Your task to perform on an android device: clear history in the chrome app Image 0: 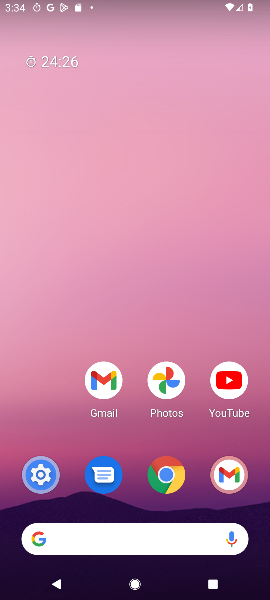
Step 0: press home button
Your task to perform on an android device: clear history in the chrome app Image 1: 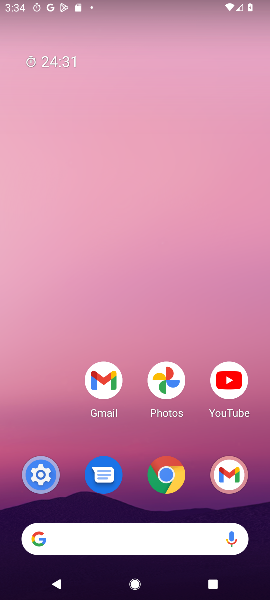
Step 1: drag from (55, 441) to (57, 242)
Your task to perform on an android device: clear history in the chrome app Image 2: 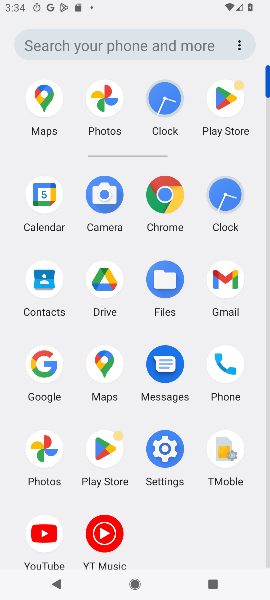
Step 2: click (170, 199)
Your task to perform on an android device: clear history in the chrome app Image 3: 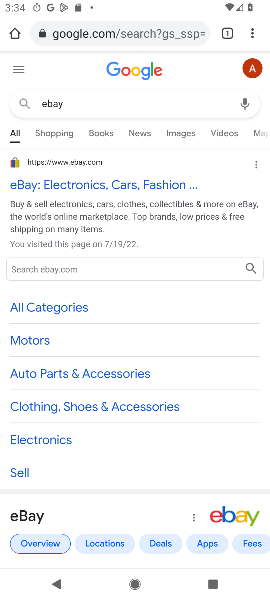
Step 3: click (252, 34)
Your task to perform on an android device: clear history in the chrome app Image 4: 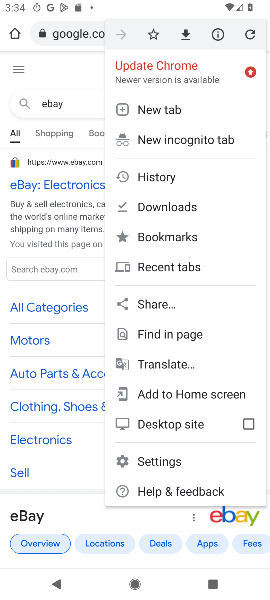
Step 4: click (182, 178)
Your task to perform on an android device: clear history in the chrome app Image 5: 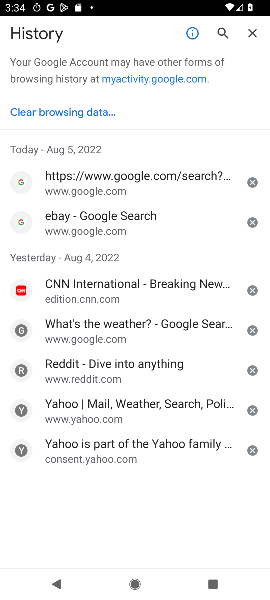
Step 5: click (112, 107)
Your task to perform on an android device: clear history in the chrome app Image 6: 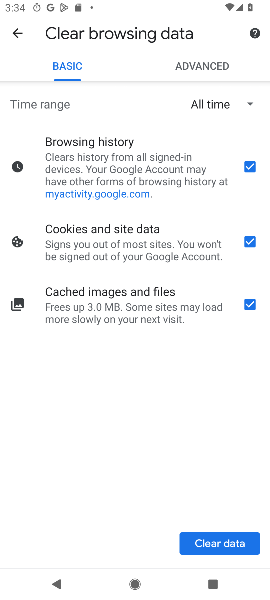
Step 6: click (222, 546)
Your task to perform on an android device: clear history in the chrome app Image 7: 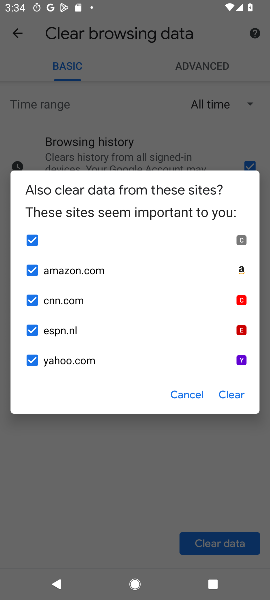
Step 7: click (230, 396)
Your task to perform on an android device: clear history in the chrome app Image 8: 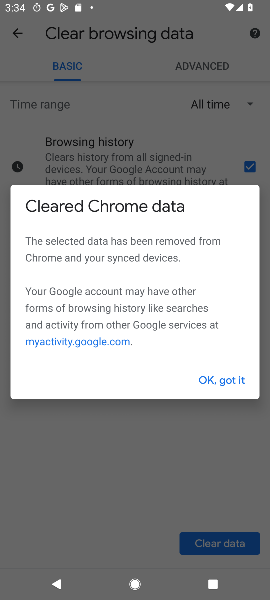
Step 8: click (226, 378)
Your task to perform on an android device: clear history in the chrome app Image 9: 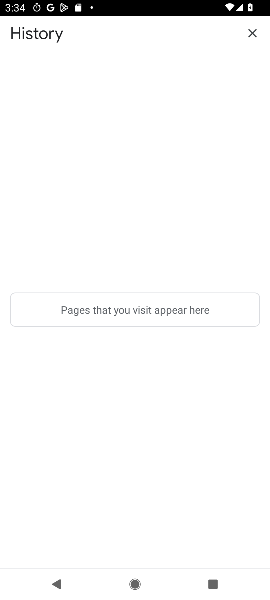
Step 9: task complete